Your task to perform on an android device: toggle wifi Image 0: 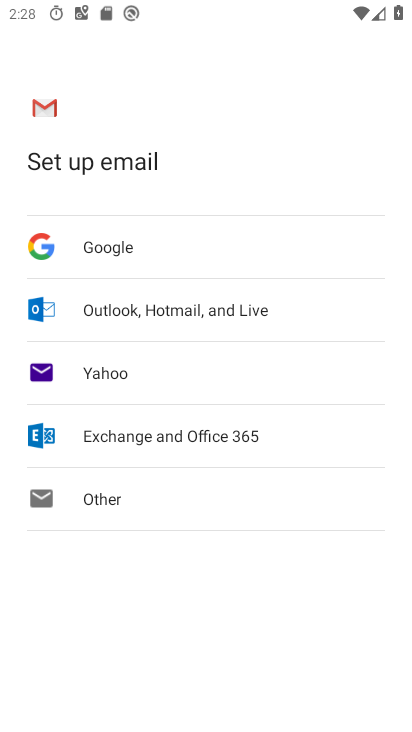
Step 0: press home button
Your task to perform on an android device: toggle wifi Image 1: 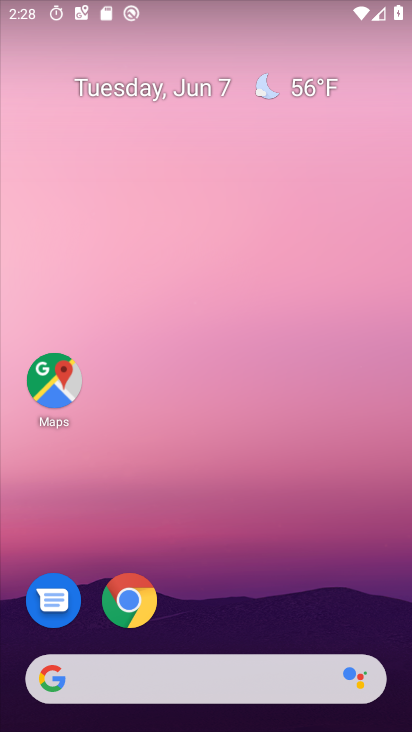
Step 1: drag from (190, 603) to (223, 237)
Your task to perform on an android device: toggle wifi Image 2: 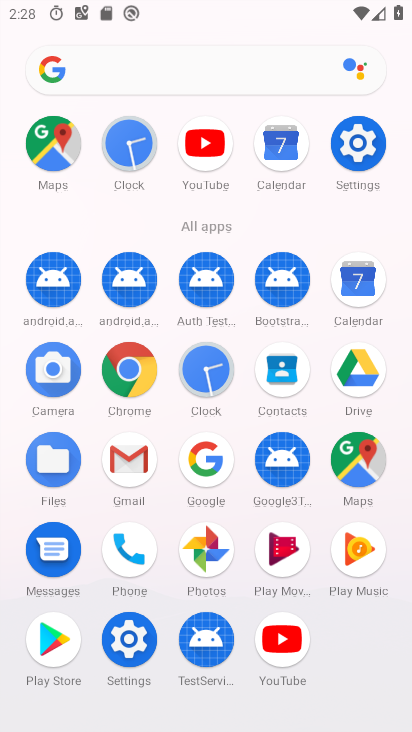
Step 2: click (350, 155)
Your task to perform on an android device: toggle wifi Image 3: 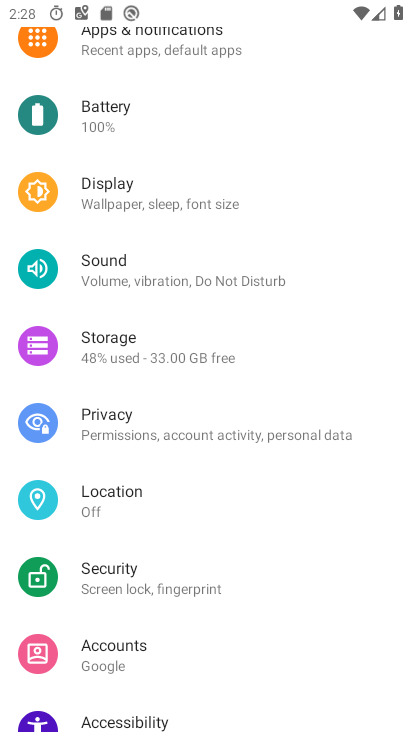
Step 3: drag from (177, 174) to (164, 609)
Your task to perform on an android device: toggle wifi Image 4: 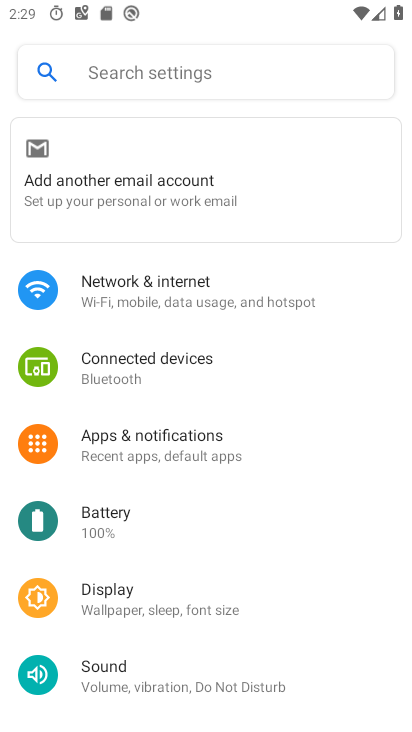
Step 4: click (133, 306)
Your task to perform on an android device: toggle wifi Image 5: 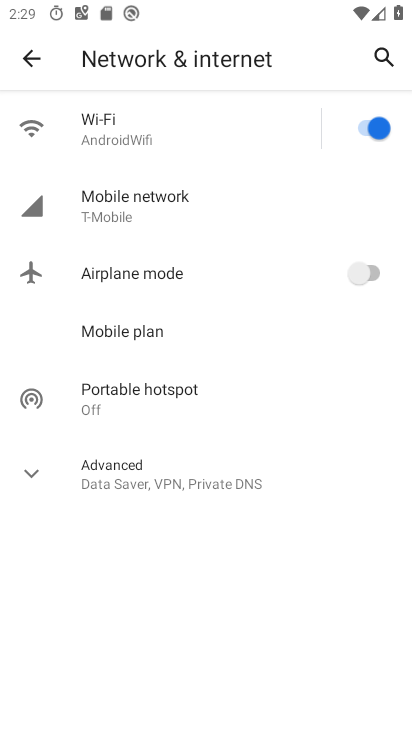
Step 5: click (364, 128)
Your task to perform on an android device: toggle wifi Image 6: 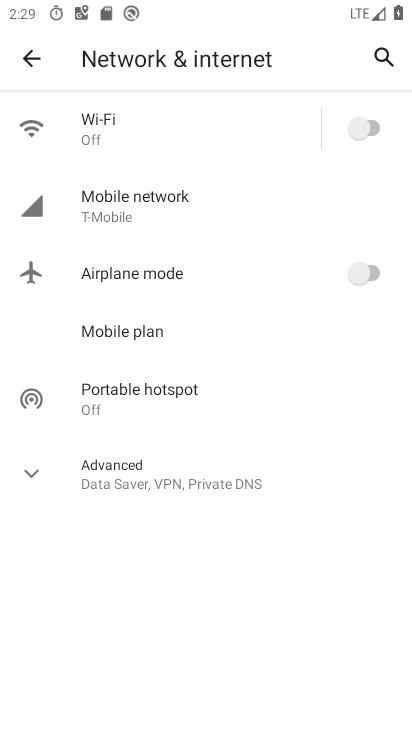
Step 6: task complete